Your task to perform on an android device: Open the Play Movies app and select the watchlist tab. Image 0: 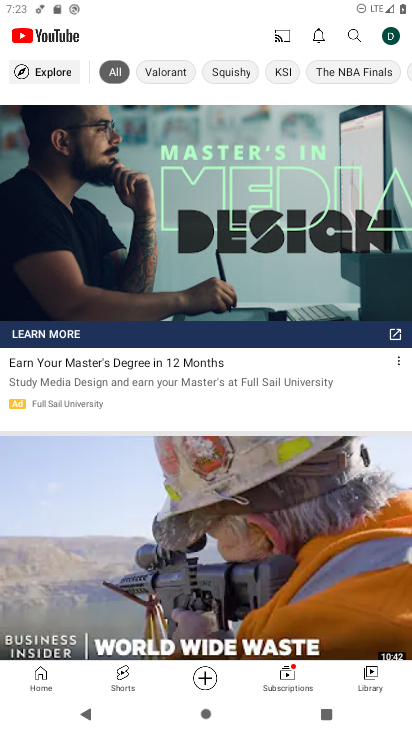
Step 0: press home button
Your task to perform on an android device: Open the Play Movies app and select the watchlist tab. Image 1: 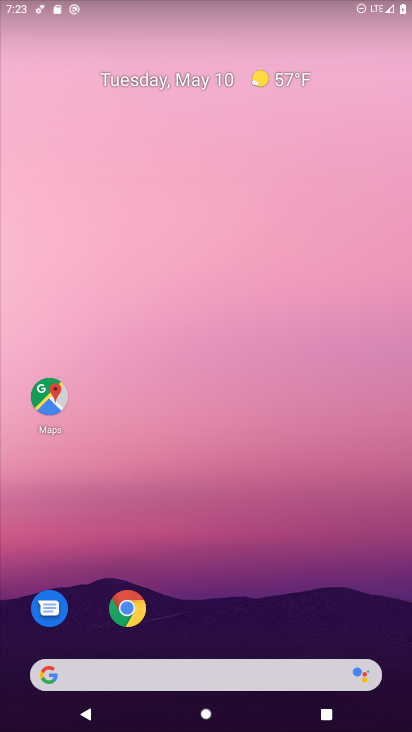
Step 1: drag from (379, 619) to (377, 88)
Your task to perform on an android device: Open the Play Movies app and select the watchlist tab. Image 2: 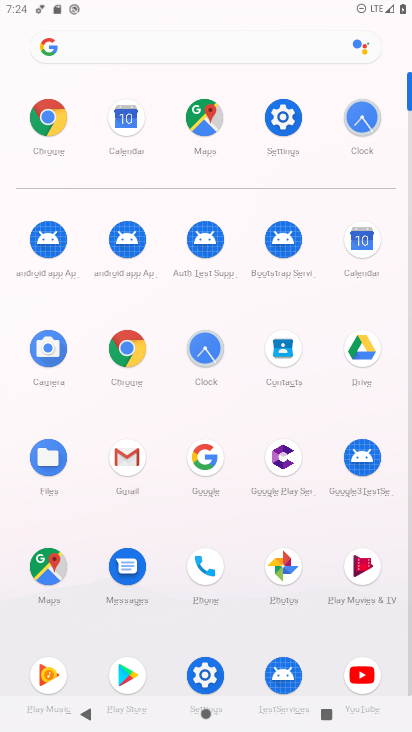
Step 2: click (366, 559)
Your task to perform on an android device: Open the Play Movies app and select the watchlist tab. Image 3: 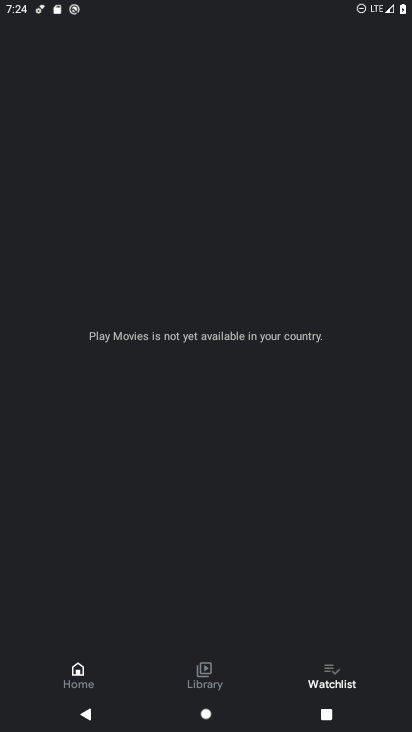
Step 3: task complete